Your task to perform on an android device: Search for duracell triple a on target.com, select the first entry, add it to the cart, then select checkout. Image 0: 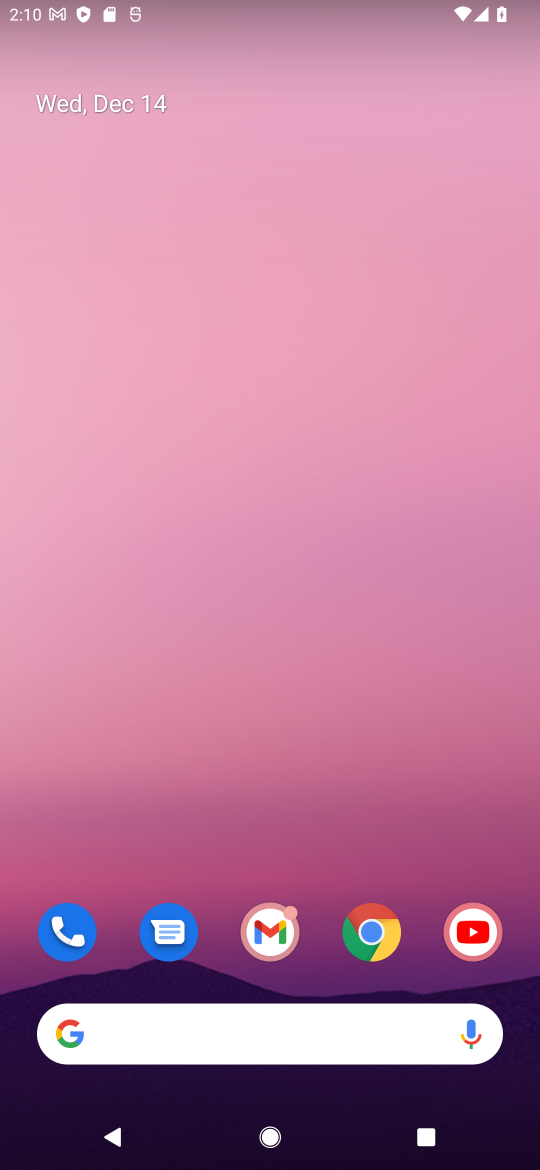
Step 0: press home button
Your task to perform on an android device: Search for duracell triple a on target.com, select the first entry, add it to the cart, then select checkout. Image 1: 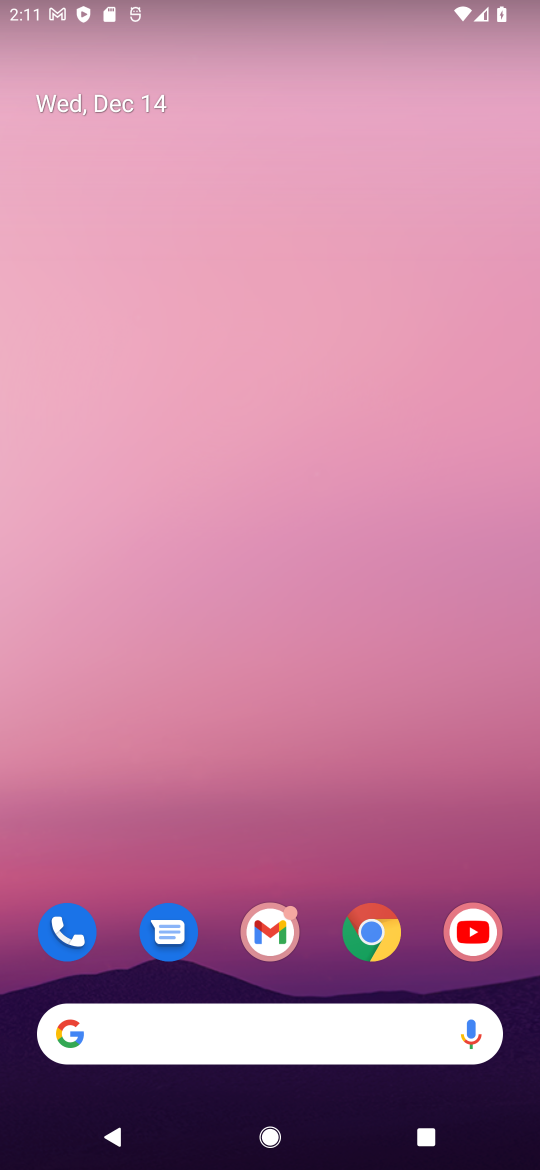
Step 1: click (232, 1018)
Your task to perform on an android device: Search for duracell triple a on target.com, select the first entry, add it to the cart, then select checkout. Image 2: 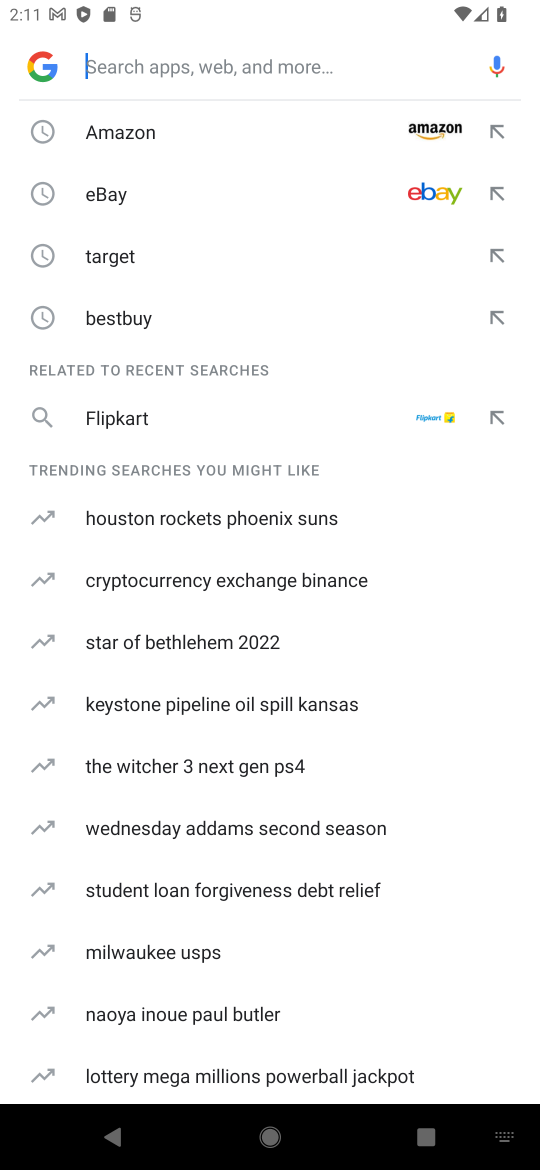
Step 2: type "target.com"
Your task to perform on an android device: Search for duracell triple a on target.com, select the first entry, add it to the cart, then select checkout. Image 3: 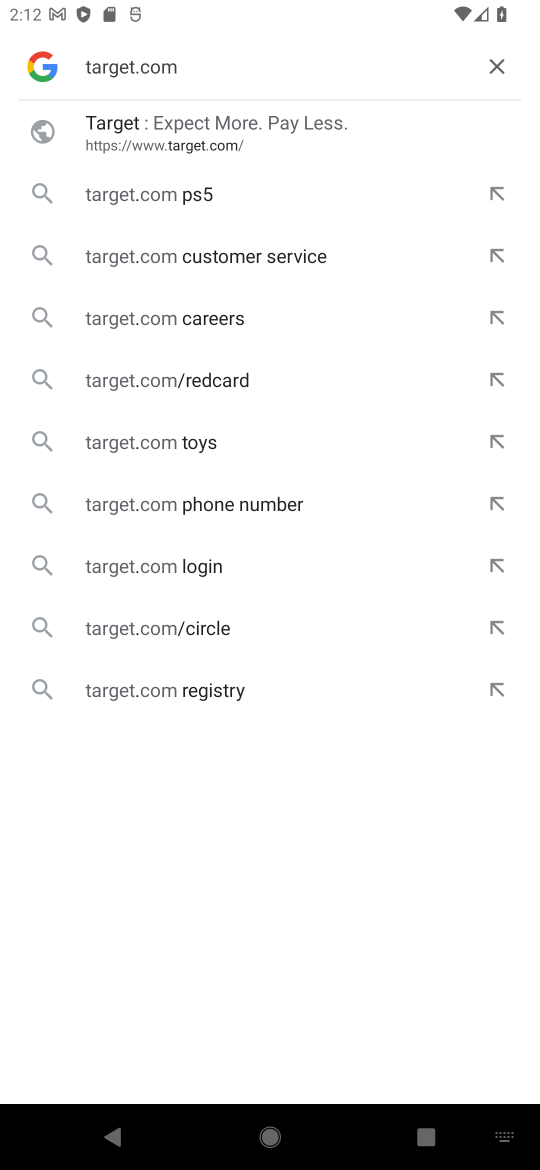
Step 3: click (255, 116)
Your task to perform on an android device: Search for duracell triple a on target.com, select the first entry, add it to the cart, then select checkout. Image 4: 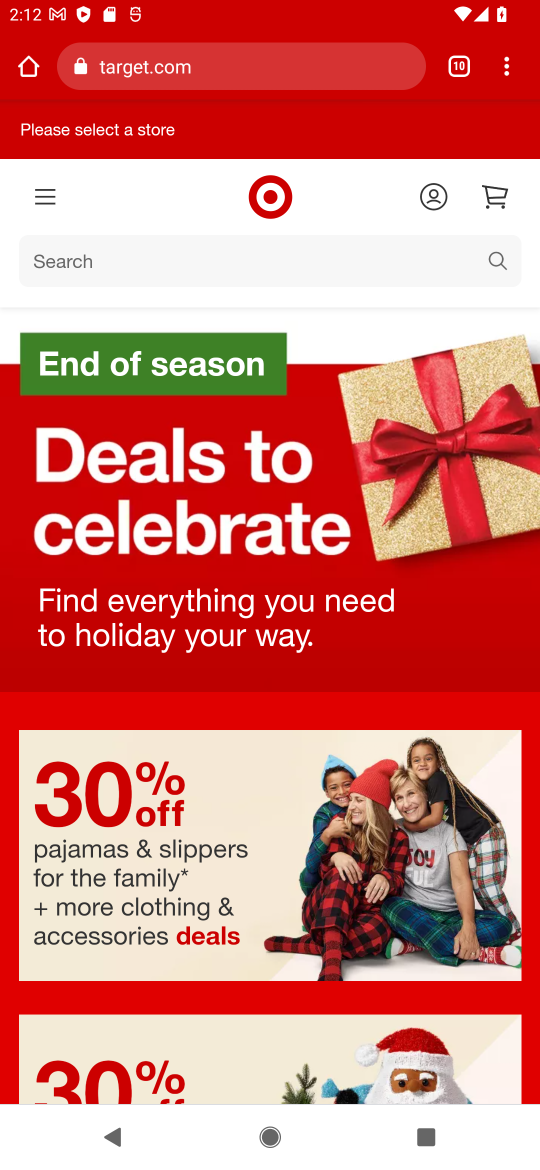
Step 4: click (181, 270)
Your task to perform on an android device: Search for duracell triple a on target.com, select the first entry, add it to the cart, then select checkout. Image 5: 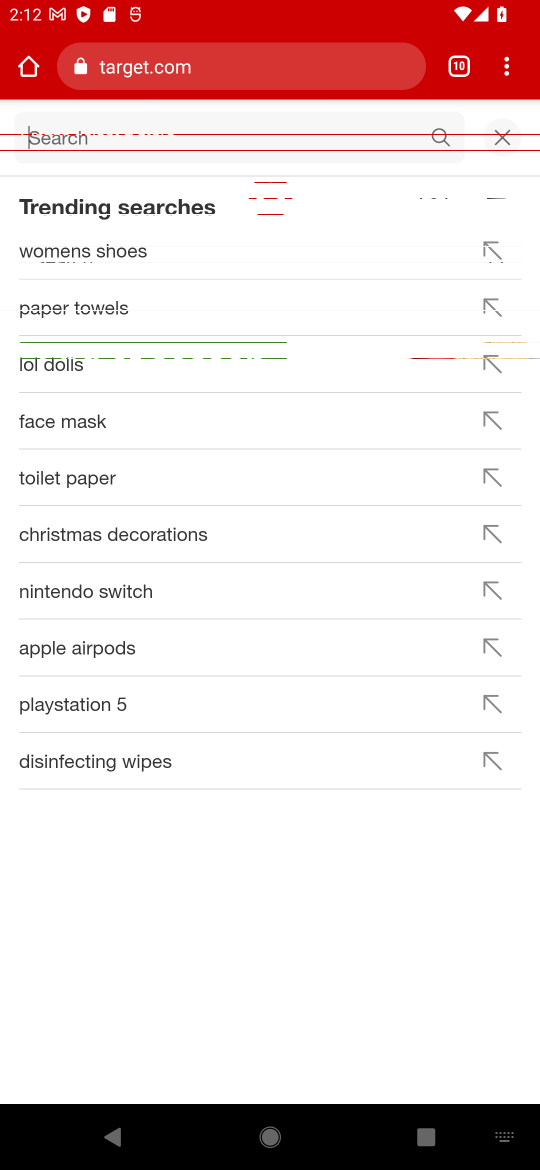
Step 5: type "duracell triple a"
Your task to perform on an android device: Search for duracell triple a on target.com, select the first entry, add it to the cart, then select checkout. Image 6: 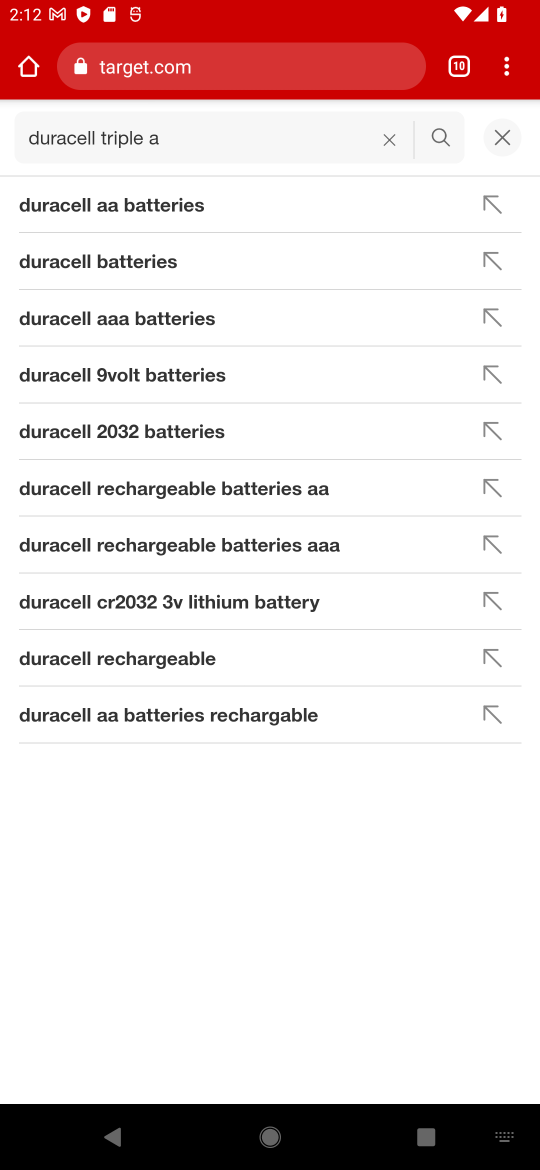
Step 6: click (430, 124)
Your task to perform on an android device: Search for duracell triple a on target.com, select the first entry, add it to the cart, then select checkout. Image 7: 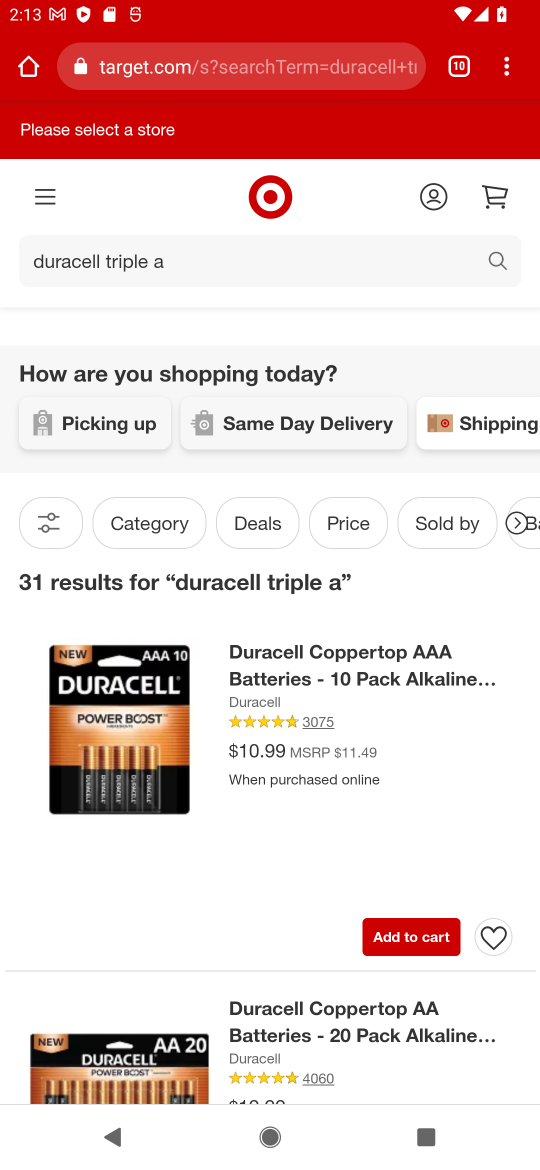
Step 7: click (421, 937)
Your task to perform on an android device: Search for duracell triple a on target.com, select the first entry, add it to the cart, then select checkout. Image 8: 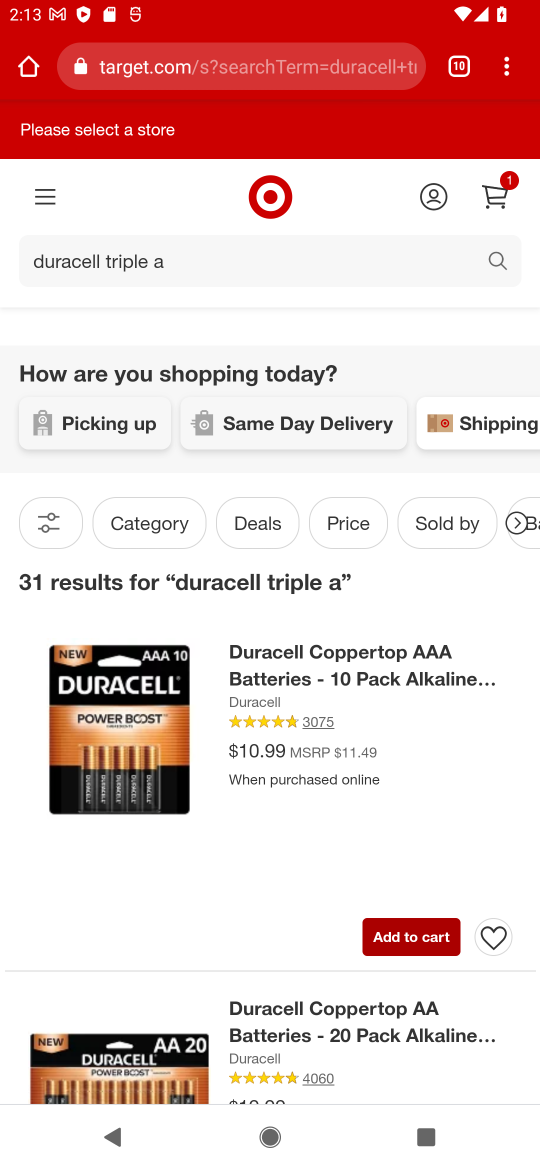
Step 8: click (495, 206)
Your task to perform on an android device: Search for duracell triple a on target.com, select the first entry, add it to the cart, then select checkout. Image 9: 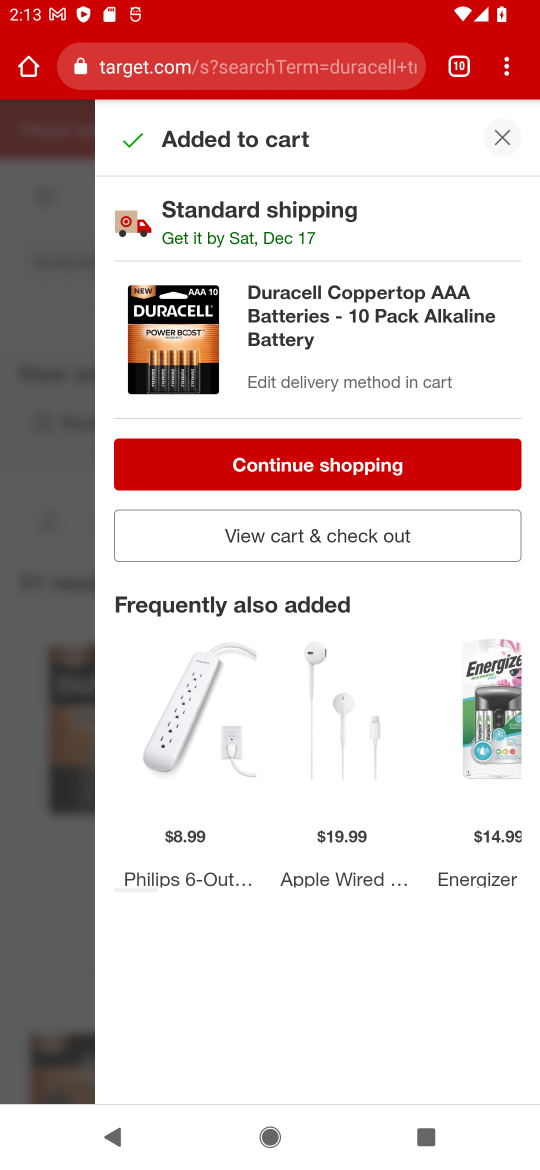
Step 9: click (327, 527)
Your task to perform on an android device: Search for duracell triple a on target.com, select the first entry, add it to the cart, then select checkout. Image 10: 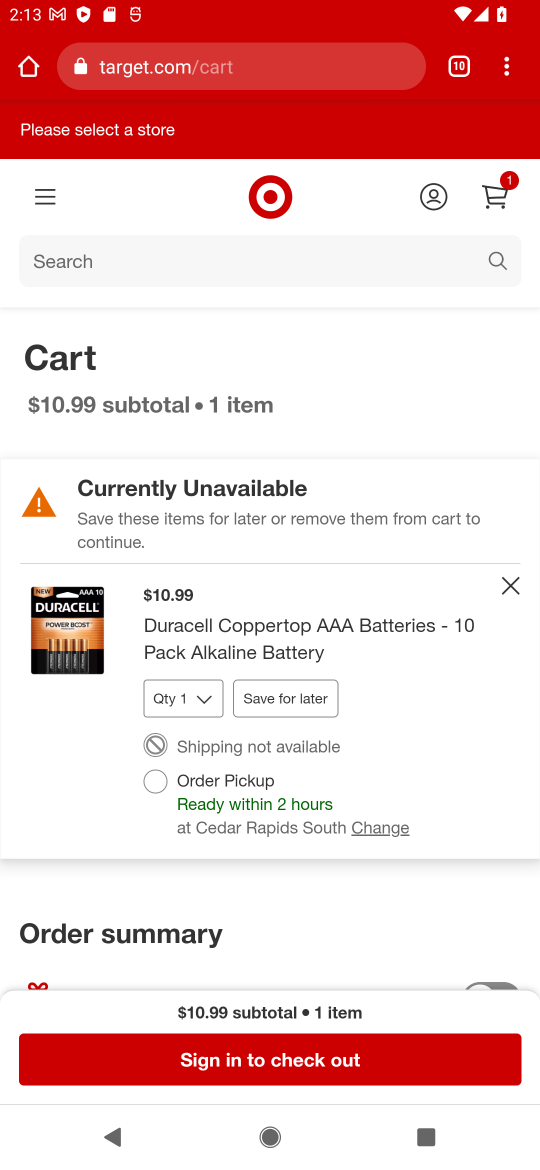
Step 10: click (278, 1058)
Your task to perform on an android device: Search for duracell triple a on target.com, select the first entry, add it to the cart, then select checkout. Image 11: 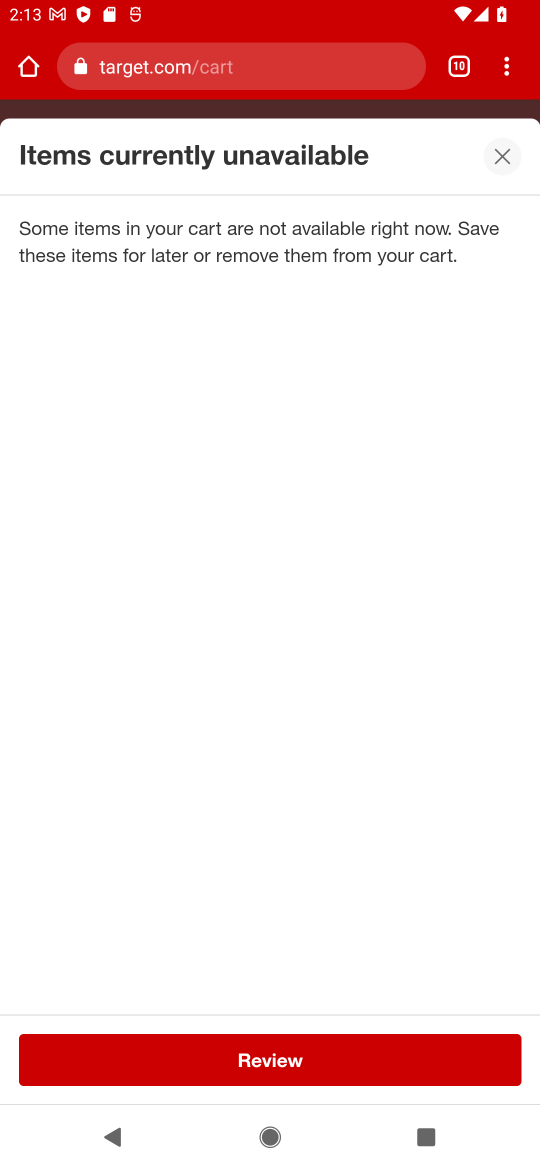
Step 11: task complete